Your task to perform on an android device: turn off data saver in the chrome app Image 0: 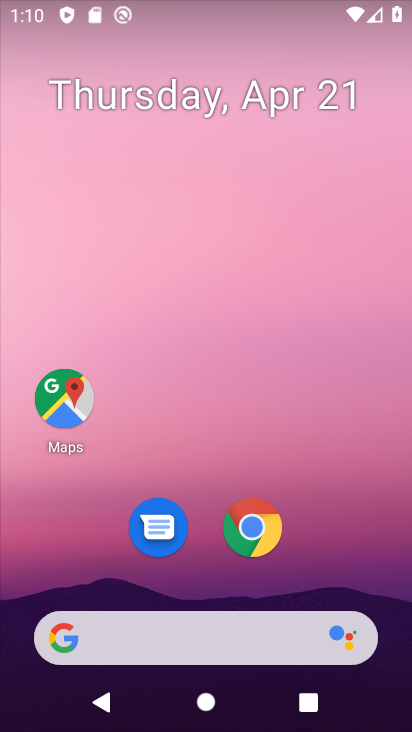
Step 0: drag from (357, 550) to (362, 157)
Your task to perform on an android device: turn off data saver in the chrome app Image 1: 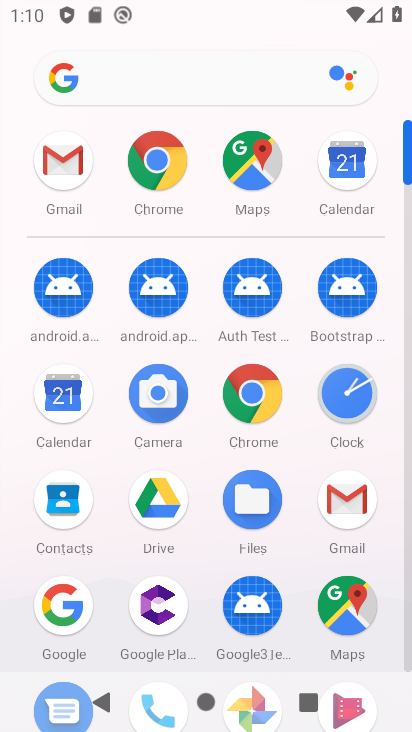
Step 1: click (241, 403)
Your task to perform on an android device: turn off data saver in the chrome app Image 2: 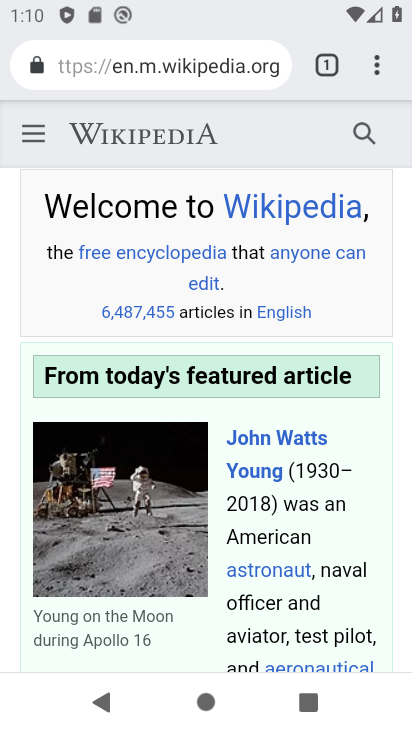
Step 2: click (377, 70)
Your task to perform on an android device: turn off data saver in the chrome app Image 3: 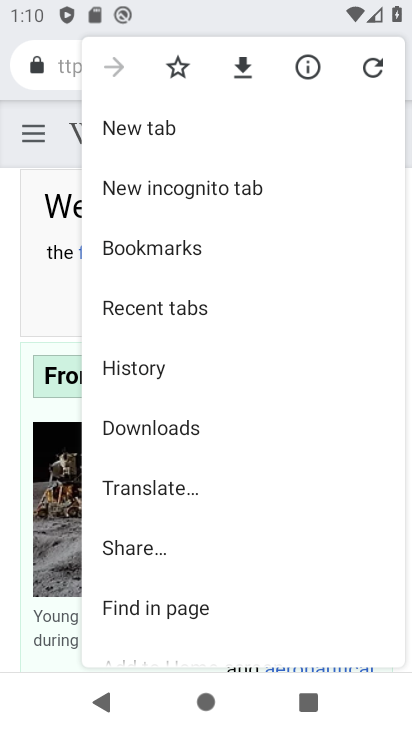
Step 3: drag from (343, 436) to (349, 318)
Your task to perform on an android device: turn off data saver in the chrome app Image 4: 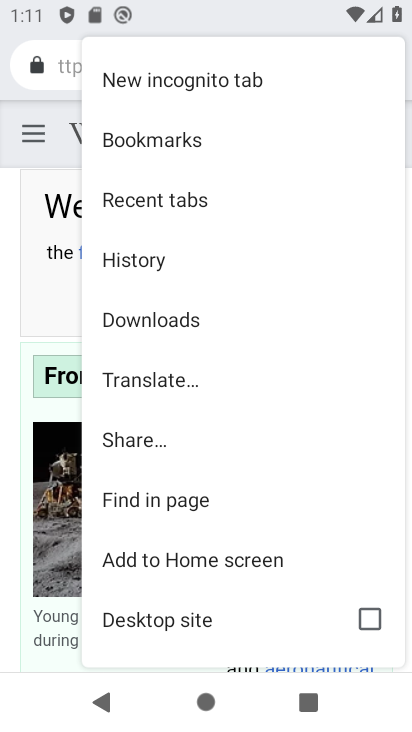
Step 4: drag from (338, 505) to (348, 353)
Your task to perform on an android device: turn off data saver in the chrome app Image 5: 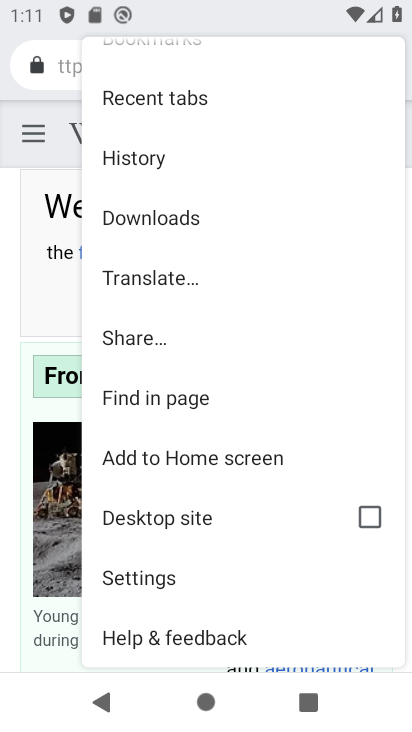
Step 5: drag from (286, 580) to (302, 416)
Your task to perform on an android device: turn off data saver in the chrome app Image 6: 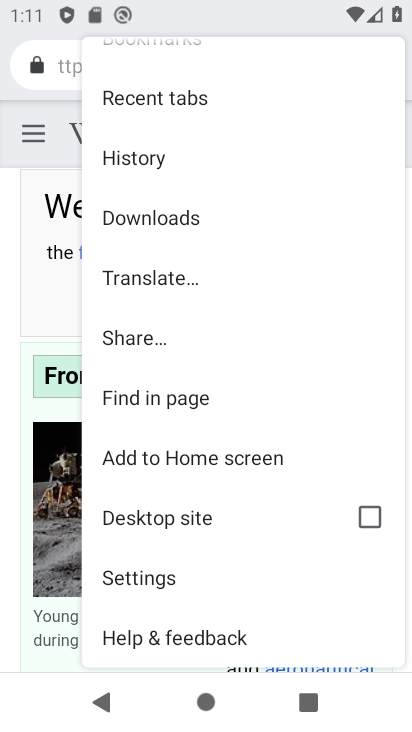
Step 6: click (198, 590)
Your task to perform on an android device: turn off data saver in the chrome app Image 7: 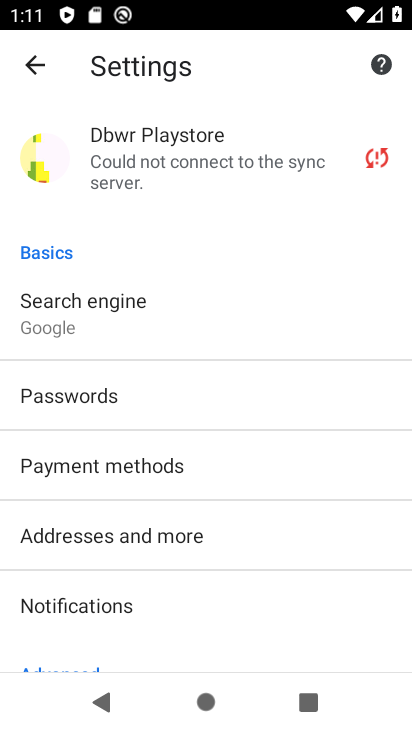
Step 7: drag from (253, 570) to (303, 377)
Your task to perform on an android device: turn off data saver in the chrome app Image 8: 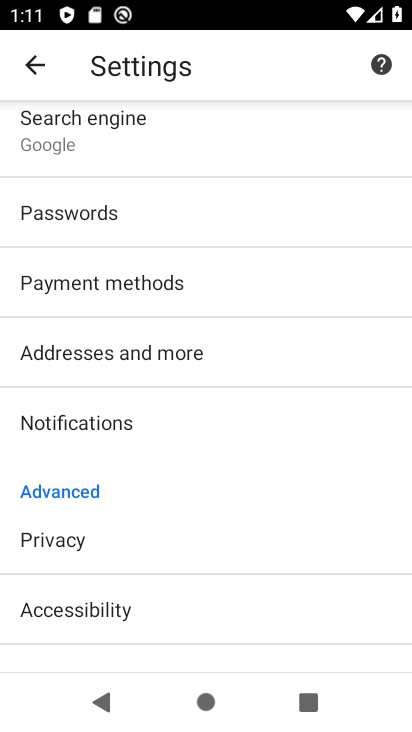
Step 8: drag from (317, 592) to (324, 420)
Your task to perform on an android device: turn off data saver in the chrome app Image 9: 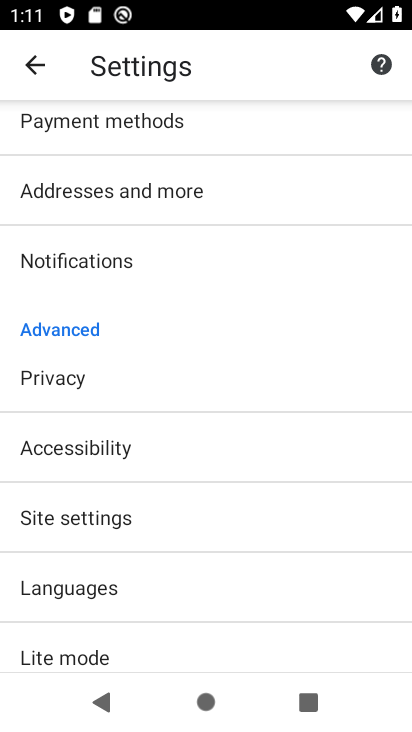
Step 9: drag from (288, 565) to (282, 398)
Your task to perform on an android device: turn off data saver in the chrome app Image 10: 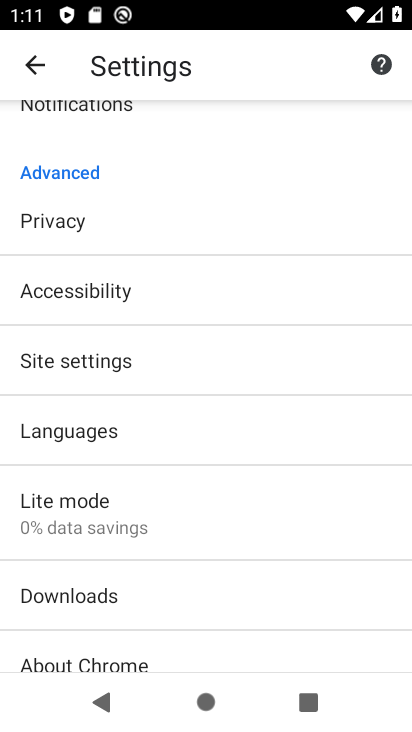
Step 10: drag from (341, 571) to (341, 432)
Your task to perform on an android device: turn off data saver in the chrome app Image 11: 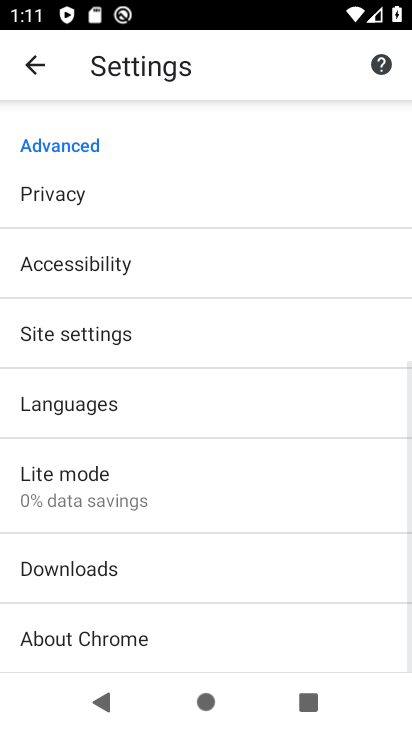
Step 11: click (323, 468)
Your task to perform on an android device: turn off data saver in the chrome app Image 12: 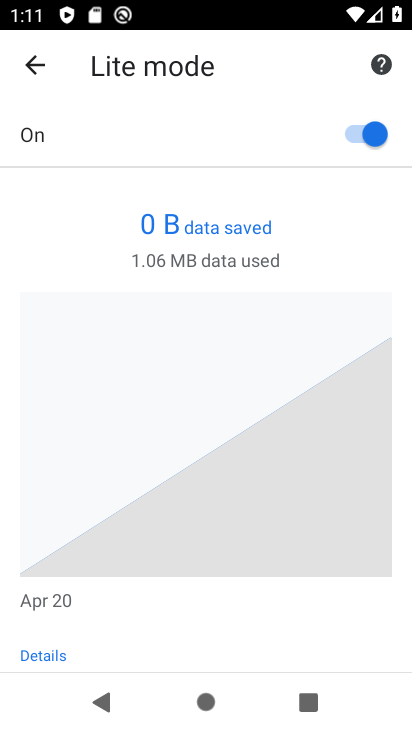
Step 12: click (377, 138)
Your task to perform on an android device: turn off data saver in the chrome app Image 13: 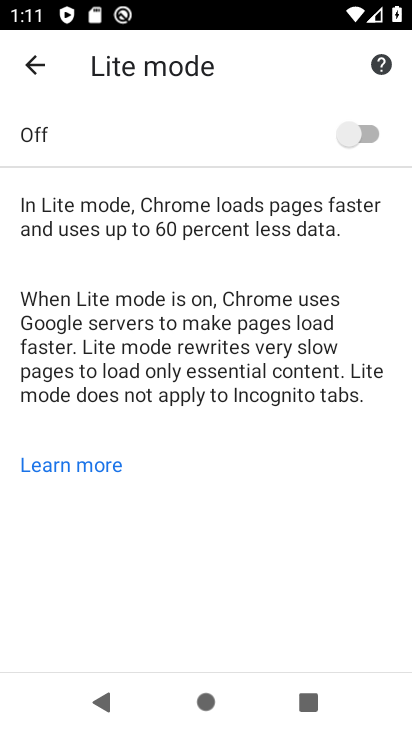
Step 13: task complete